Your task to perform on an android device: clear all cookies in the chrome app Image 0: 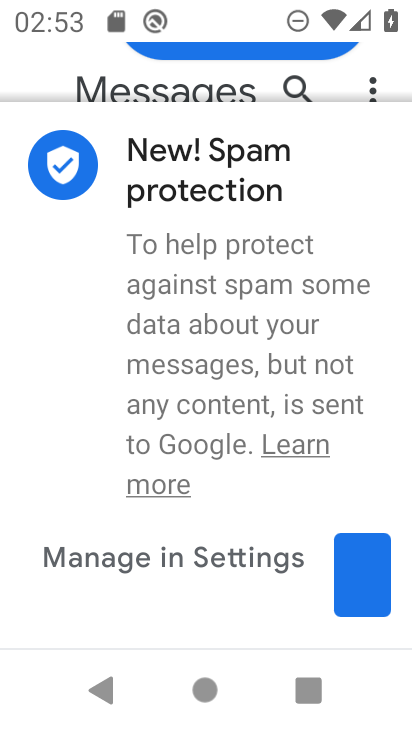
Step 0: press home button
Your task to perform on an android device: clear all cookies in the chrome app Image 1: 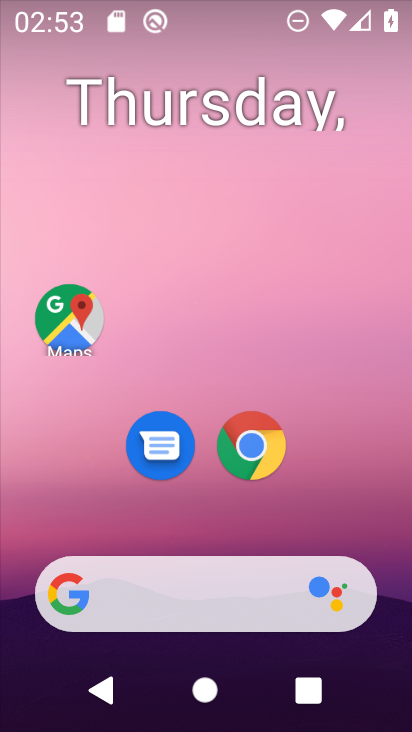
Step 1: click (236, 447)
Your task to perform on an android device: clear all cookies in the chrome app Image 2: 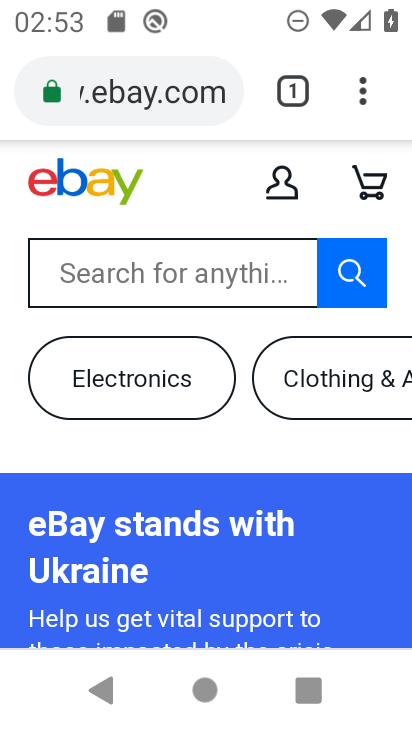
Step 2: click (370, 92)
Your task to perform on an android device: clear all cookies in the chrome app Image 3: 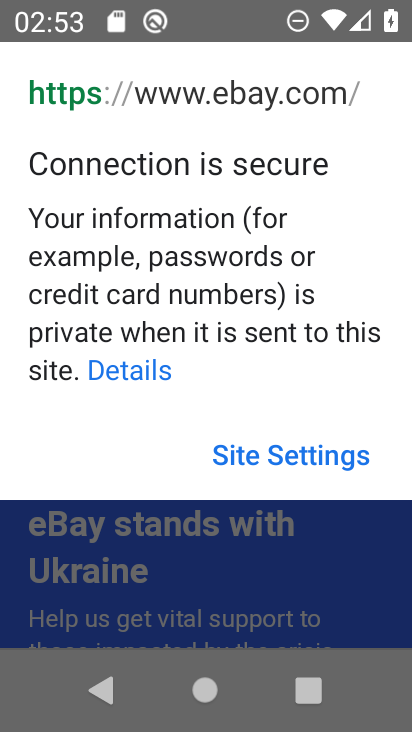
Step 3: press back button
Your task to perform on an android device: clear all cookies in the chrome app Image 4: 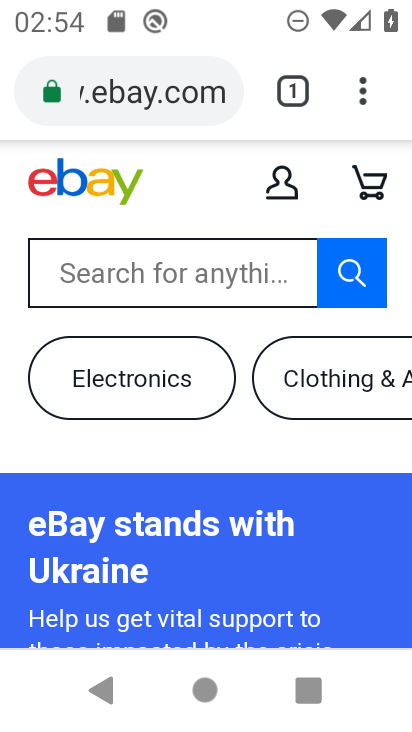
Step 4: click (368, 101)
Your task to perform on an android device: clear all cookies in the chrome app Image 5: 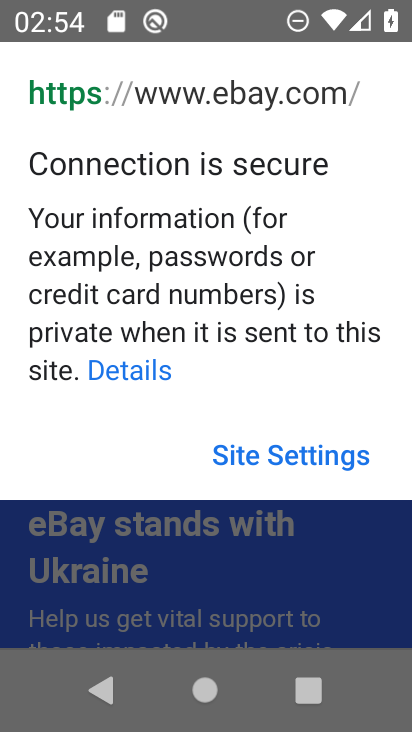
Step 5: press back button
Your task to perform on an android device: clear all cookies in the chrome app Image 6: 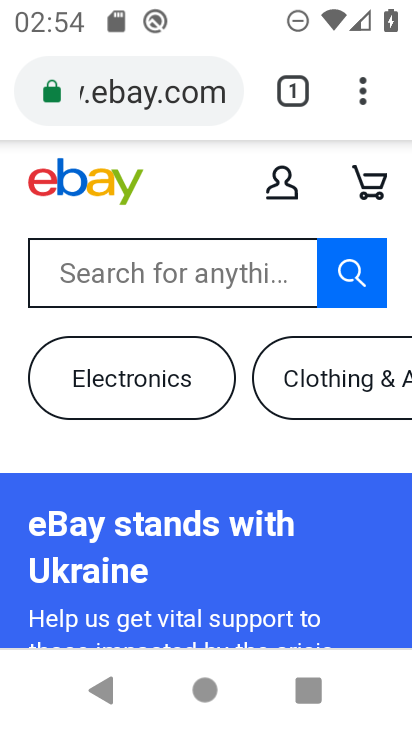
Step 6: click (373, 102)
Your task to perform on an android device: clear all cookies in the chrome app Image 7: 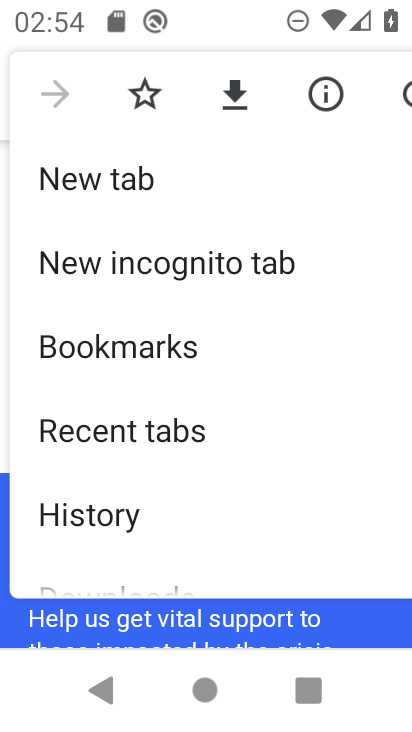
Step 7: click (94, 512)
Your task to perform on an android device: clear all cookies in the chrome app Image 8: 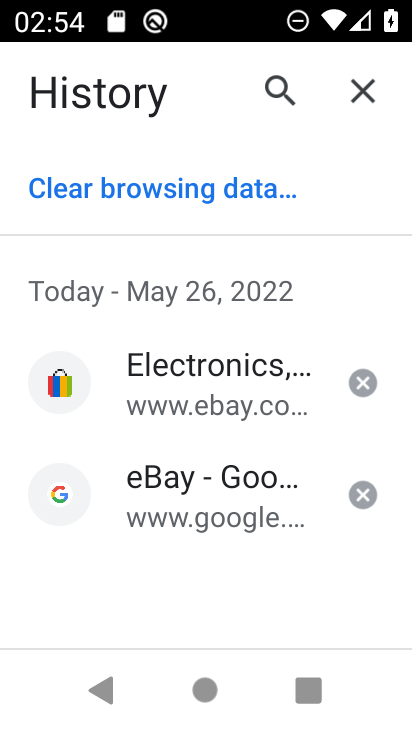
Step 8: click (235, 189)
Your task to perform on an android device: clear all cookies in the chrome app Image 9: 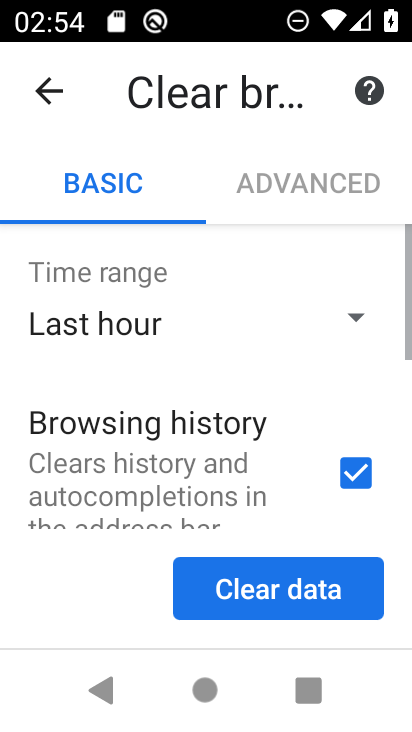
Step 9: drag from (86, 485) to (182, 164)
Your task to perform on an android device: clear all cookies in the chrome app Image 10: 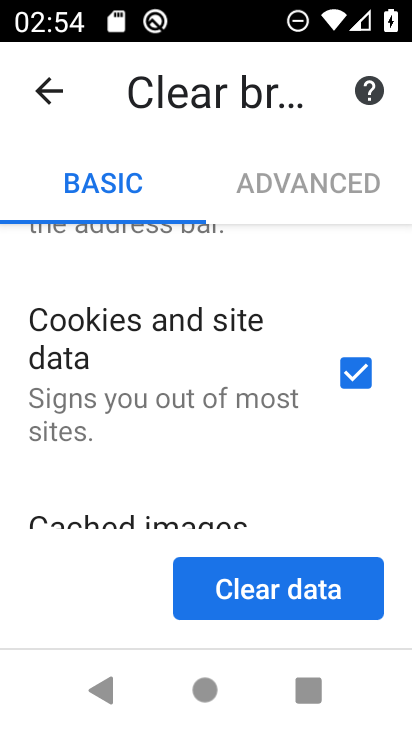
Step 10: drag from (273, 262) to (233, 452)
Your task to perform on an android device: clear all cookies in the chrome app Image 11: 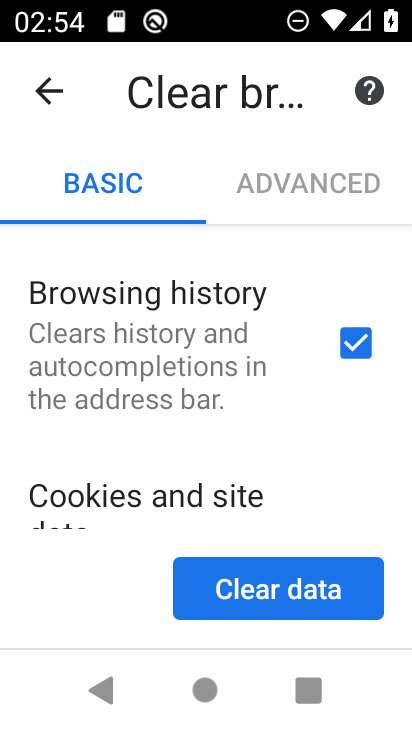
Step 11: click (351, 349)
Your task to perform on an android device: clear all cookies in the chrome app Image 12: 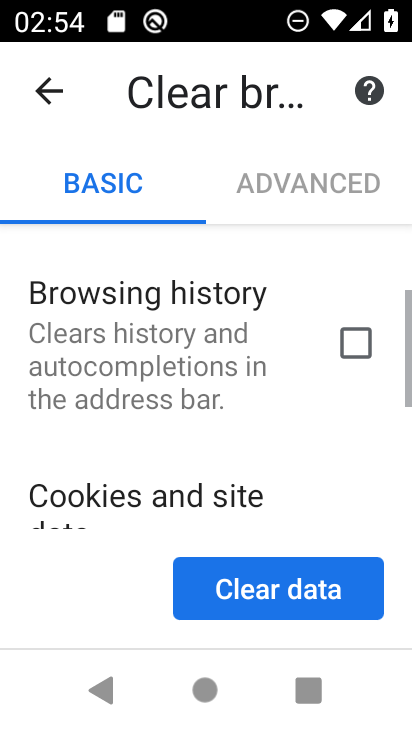
Step 12: drag from (9, 479) to (174, 201)
Your task to perform on an android device: clear all cookies in the chrome app Image 13: 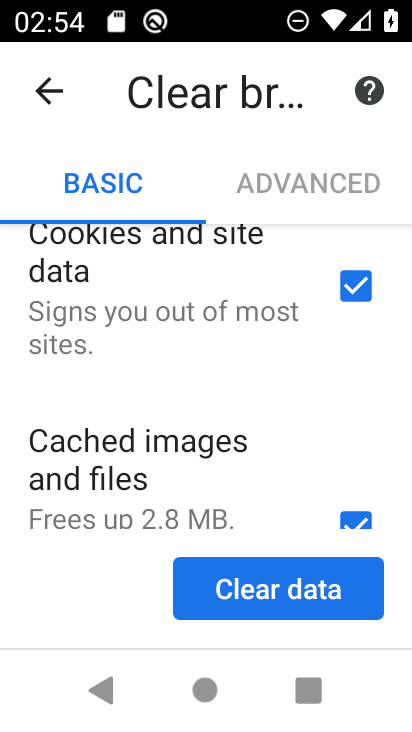
Step 13: drag from (156, 464) to (245, 273)
Your task to perform on an android device: clear all cookies in the chrome app Image 14: 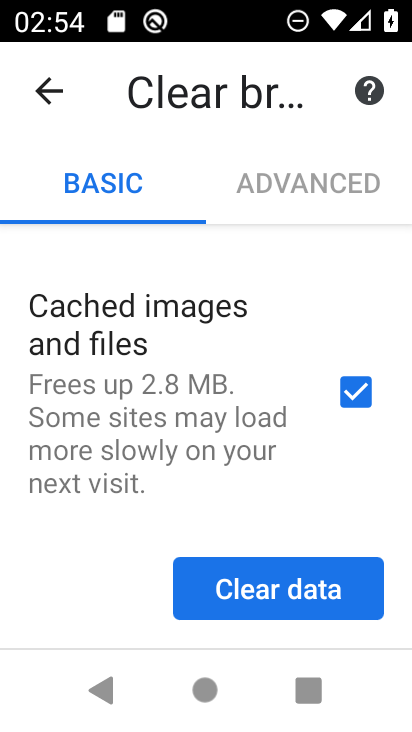
Step 14: click (354, 395)
Your task to perform on an android device: clear all cookies in the chrome app Image 15: 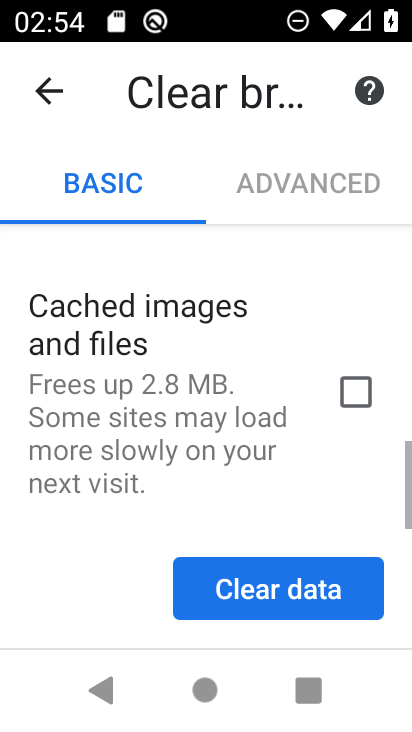
Step 15: click (279, 589)
Your task to perform on an android device: clear all cookies in the chrome app Image 16: 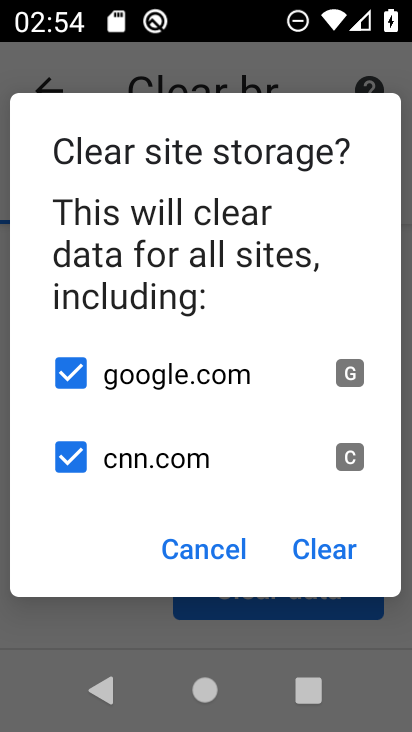
Step 16: click (319, 552)
Your task to perform on an android device: clear all cookies in the chrome app Image 17: 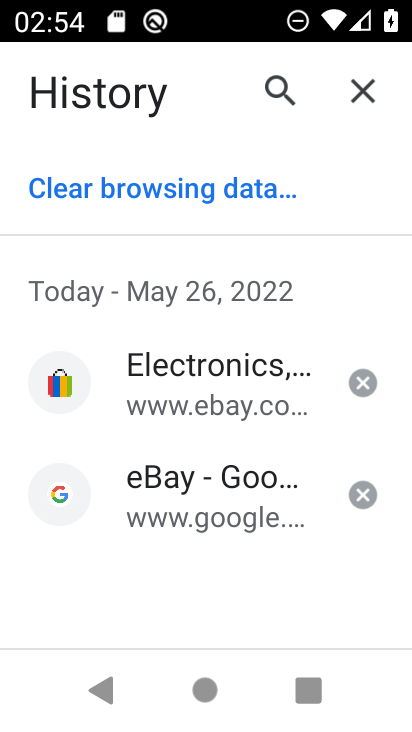
Step 17: task complete